Your task to perform on an android device: toggle sleep mode Image 0: 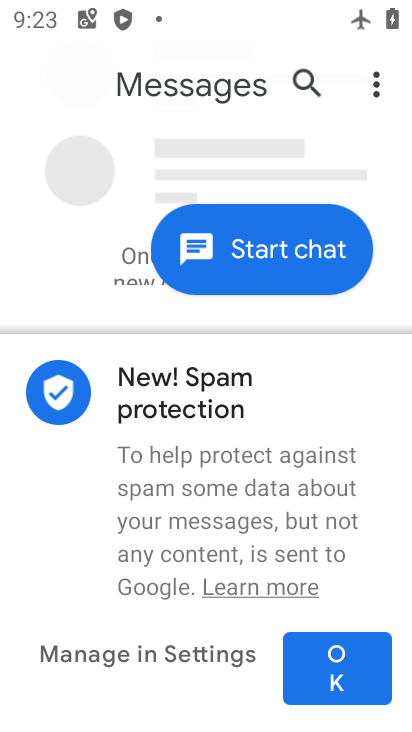
Step 0: press home button
Your task to perform on an android device: toggle sleep mode Image 1: 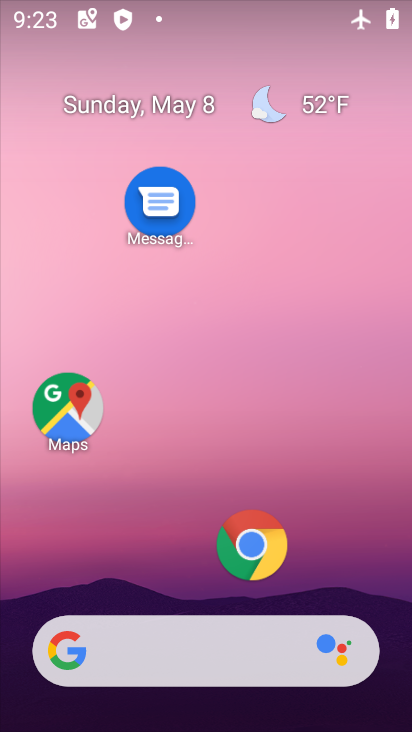
Step 1: drag from (208, 605) to (196, 45)
Your task to perform on an android device: toggle sleep mode Image 2: 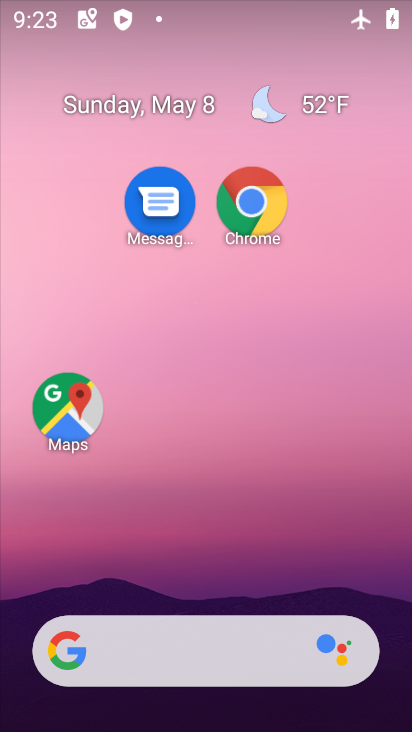
Step 2: drag from (249, 573) to (289, 0)
Your task to perform on an android device: toggle sleep mode Image 3: 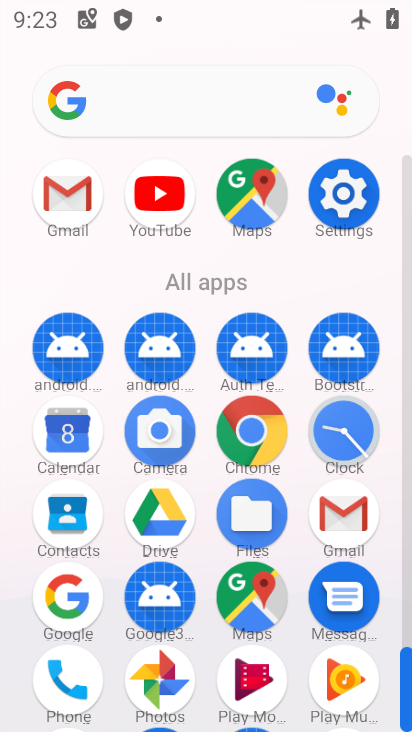
Step 3: click (342, 190)
Your task to perform on an android device: toggle sleep mode Image 4: 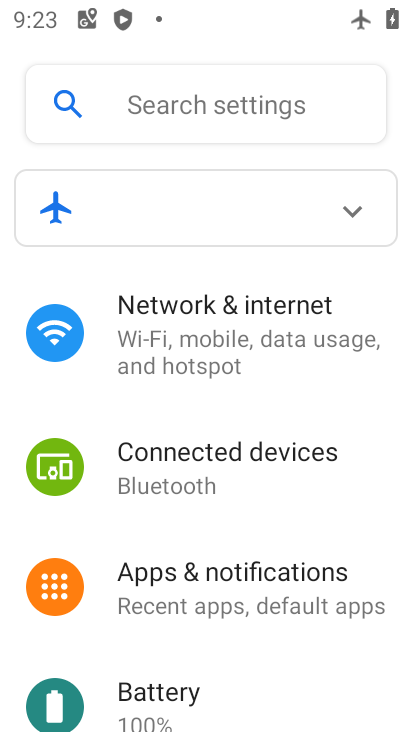
Step 4: drag from (165, 693) to (142, 61)
Your task to perform on an android device: toggle sleep mode Image 5: 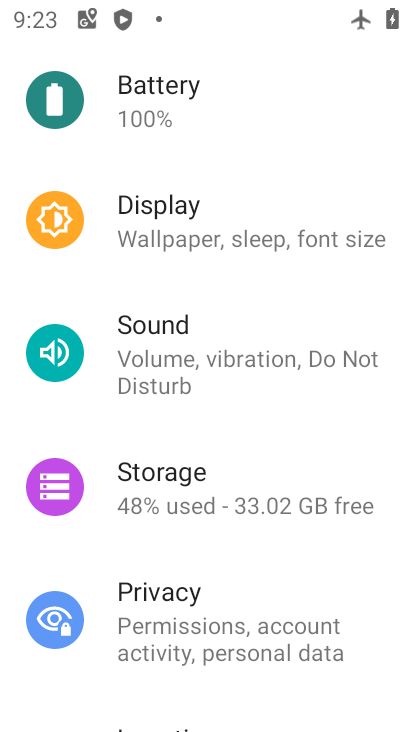
Step 5: click (210, 212)
Your task to perform on an android device: toggle sleep mode Image 6: 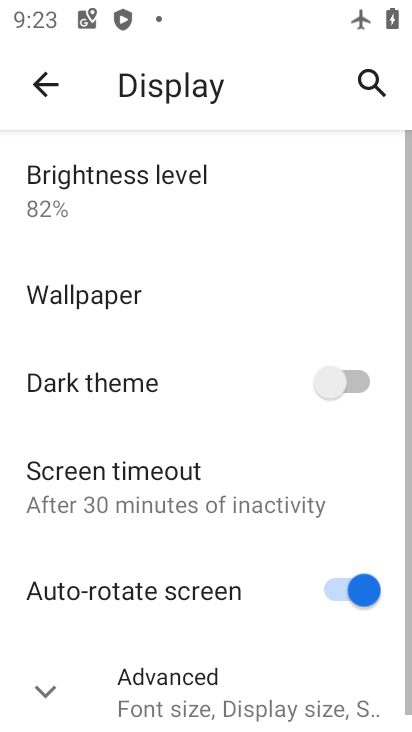
Step 6: click (209, 676)
Your task to perform on an android device: toggle sleep mode Image 7: 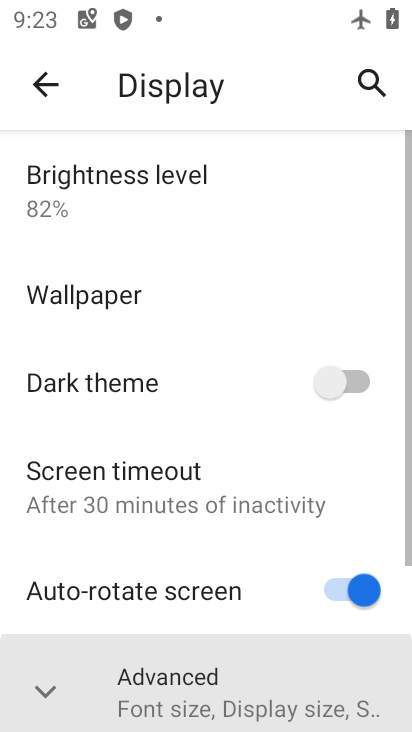
Step 7: drag from (209, 676) to (169, 142)
Your task to perform on an android device: toggle sleep mode Image 8: 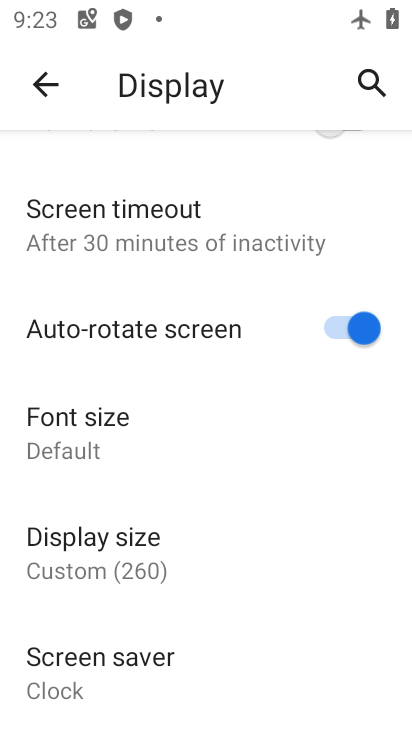
Step 8: drag from (176, 576) to (180, 102)
Your task to perform on an android device: toggle sleep mode Image 9: 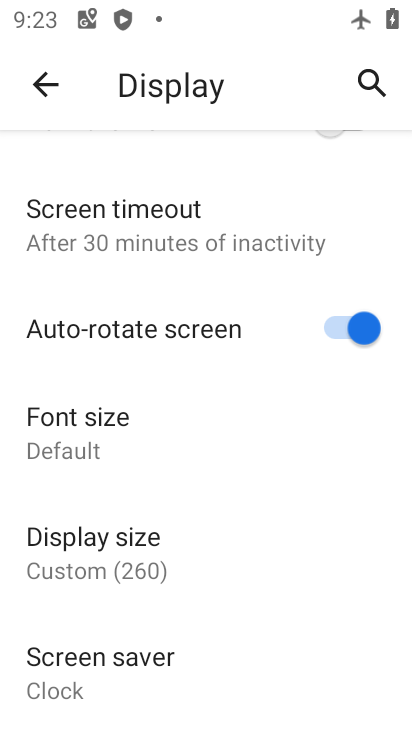
Step 9: drag from (161, 395) to (145, 730)
Your task to perform on an android device: toggle sleep mode Image 10: 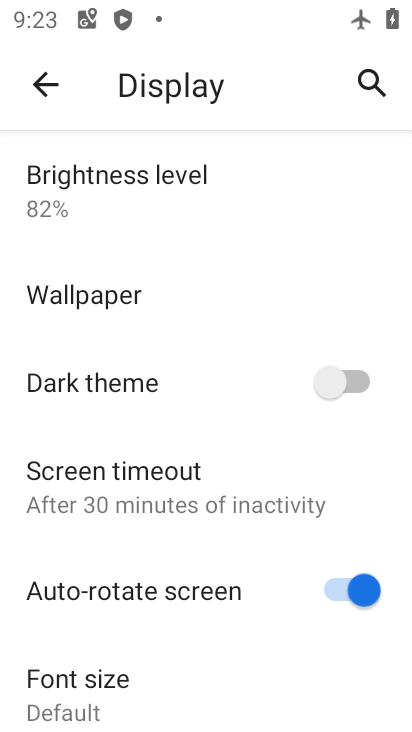
Step 10: drag from (214, 562) to (191, 153)
Your task to perform on an android device: toggle sleep mode Image 11: 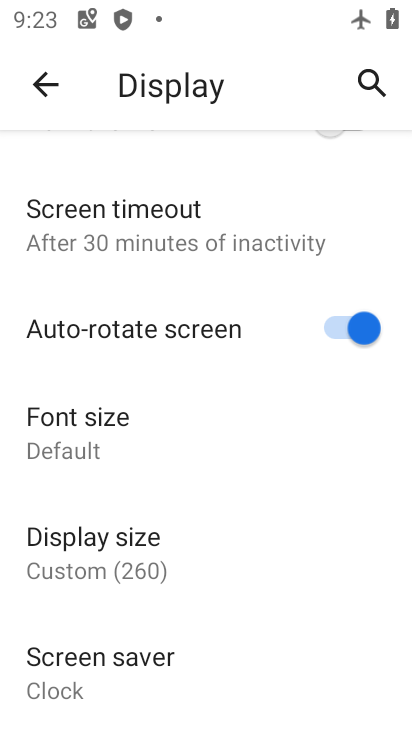
Step 11: click (56, 98)
Your task to perform on an android device: toggle sleep mode Image 12: 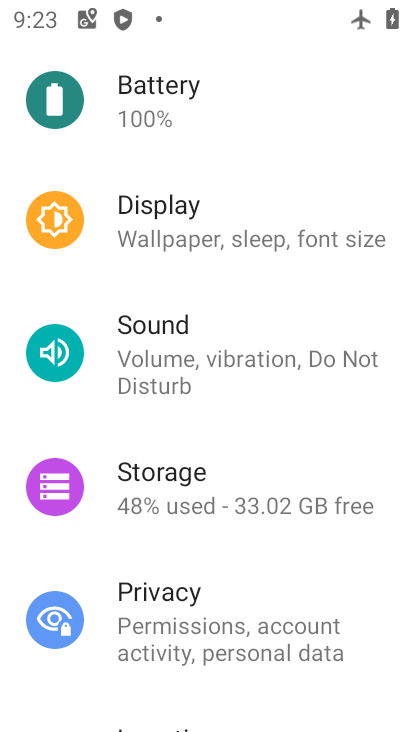
Step 12: click (253, 213)
Your task to perform on an android device: toggle sleep mode Image 13: 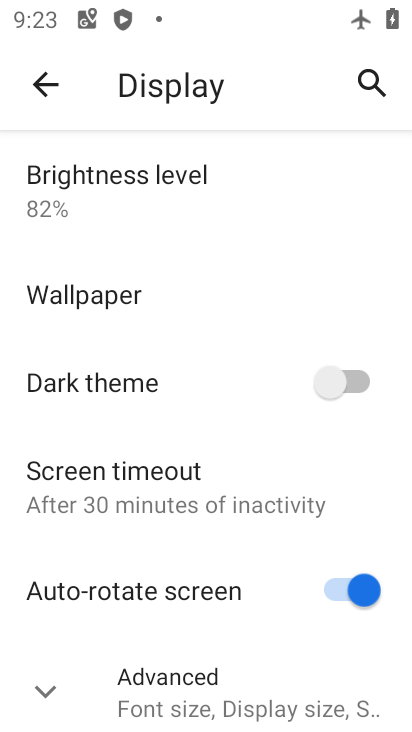
Step 13: click (182, 476)
Your task to perform on an android device: toggle sleep mode Image 14: 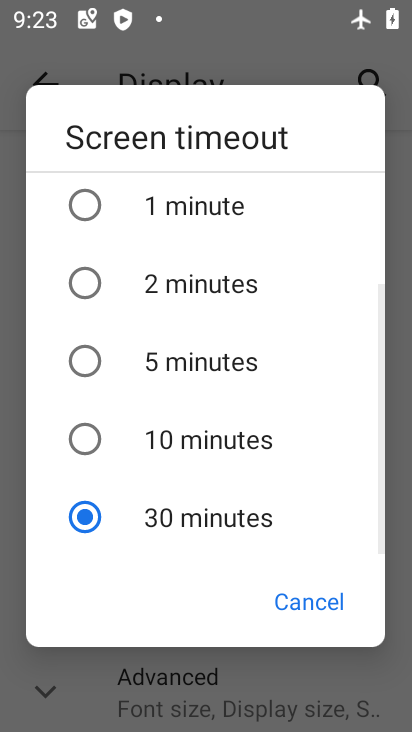
Step 14: task complete